Your task to perform on an android device: Open accessibility settings Image 0: 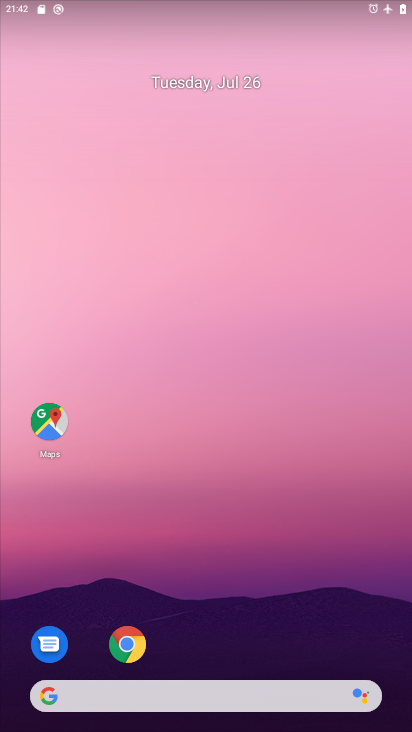
Step 0: drag from (180, 519) to (174, 218)
Your task to perform on an android device: Open accessibility settings Image 1: 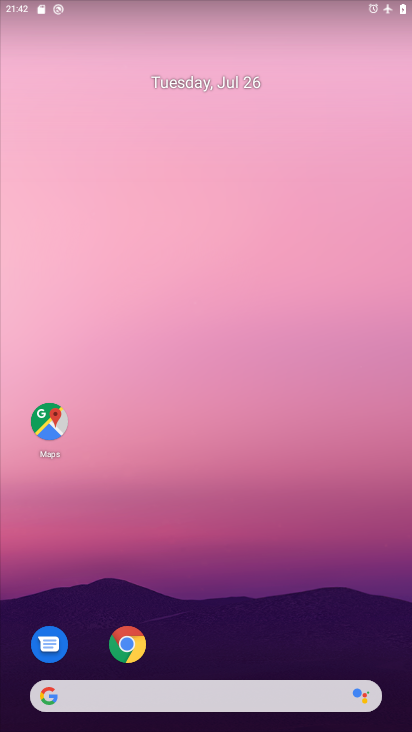
Step 1: drag from (190, 665) to (190, 22)
Your task to perform on an android device: Open accessibility settings Image 2: 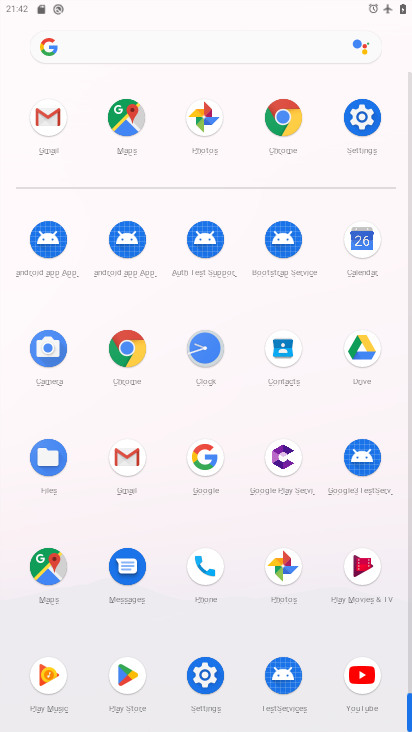
Step 2: click (373, 114)
Your task to perform on an android device: Open accessibility settings Image 3: 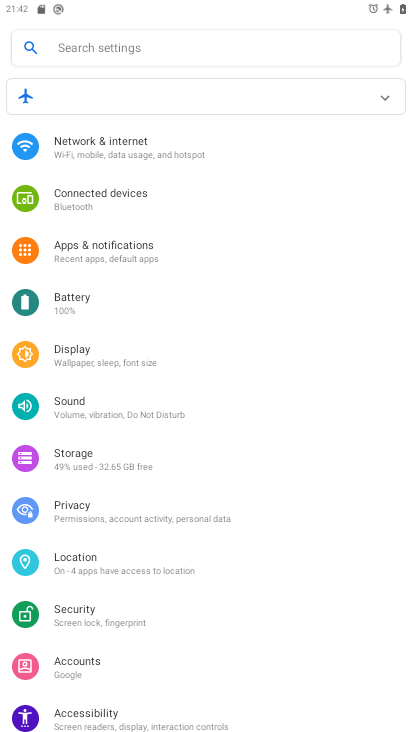
Step 3: click (104, 707)
Your task to perform on an android device: Open accessibility settings Image 4: 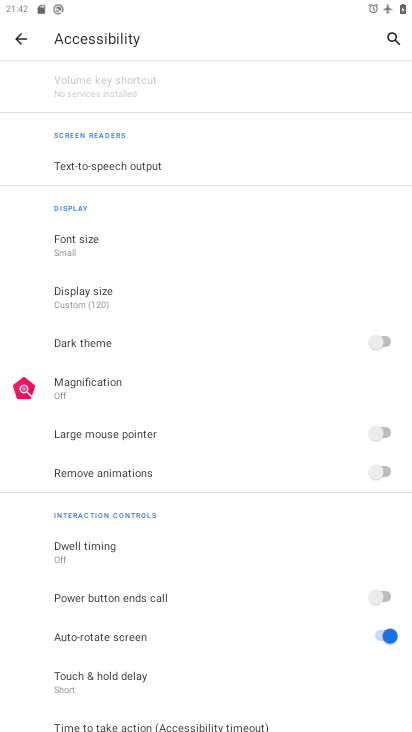
Step 4: task complete